Your task to perform on an android device: Search for apple airpods on newegg, select the first entry, and add it to the cart. Image 0: 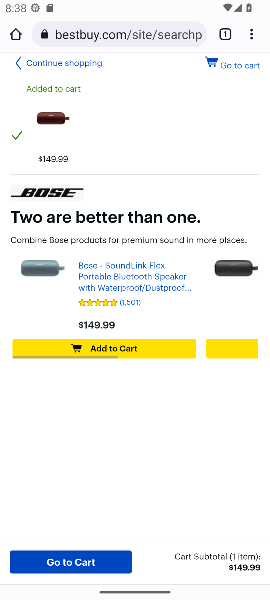
Step 0: press home button
Your task to perform on an android device: Search for apple airpods on newegg, select the first entry, and add it to the cart. Image 1: 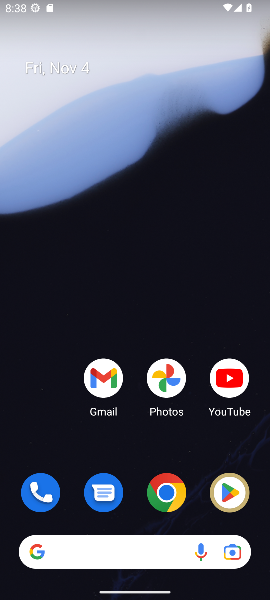
Step 1: drag from (125, 446) to (132, 10)
Your task to perform on an android device: Search for apple airpods on newegg, select the first entry, and add it to the cart. Image 2: 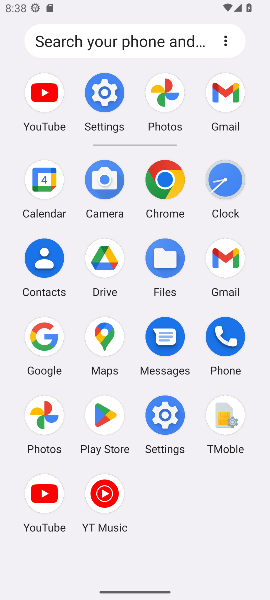
Step 2: click (167, 178)
Your task to perform on an android device: Search for apple airpods on newegg, select the first entry, and add it to the cart. Image 3: 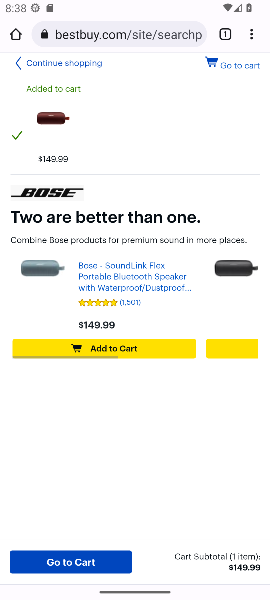
Step 3: click (150, 36)
Your task to perform on an android device: Search for apple airpods on newegg, select the first entry, and add it to the cart. Image 4: 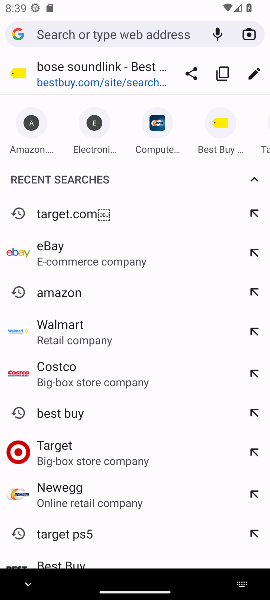
Step 4: type "newegg.com"
Your task to perform on an android device: Search for apple airpods on newegg, select the first entry, and add it to the cart. Image 5: 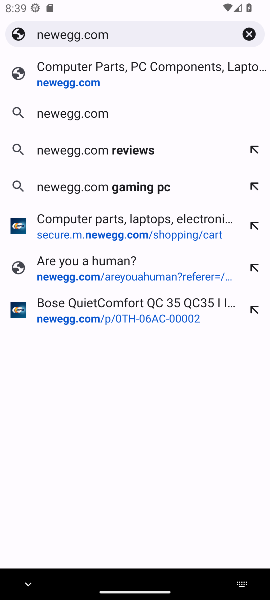
Step 5: press enter
Your task to perform on an android device: Search for apple airpods on newegg, select the first entry, and add it to the cart. Image 6: 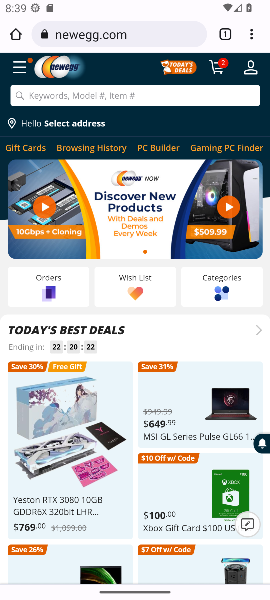
Step 6: click (155, 94)
Your task to perform on an android device: Search for apple airpods on newegg, select the first entry, and add it to the cart. Image 7: 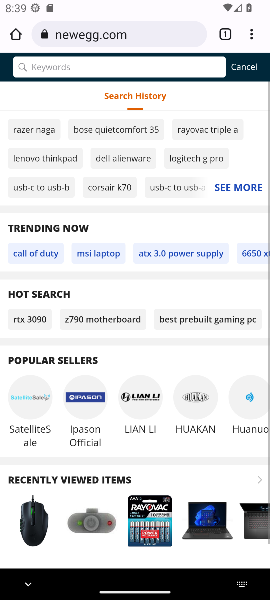
Step 7: type "apple airpods"
Your task to perform on an android device: Search for apple airpods on newegg, select the first entry, and add it to the cart. Image 8: 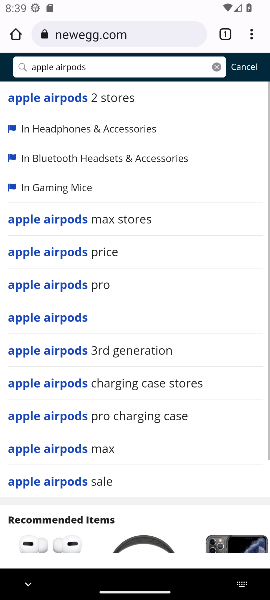
Step 8: press enter
Your task to perform on an android device: Search for apple airpods on newegg, select the first entry, and add it to the cart. Image 9: 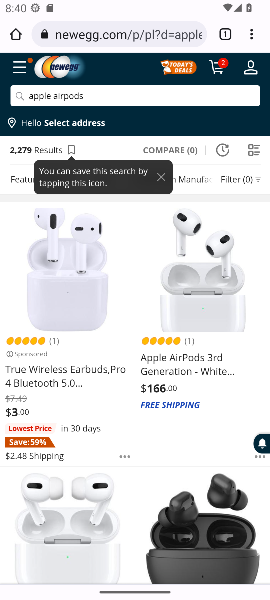
Step 9: drag from (255, 154) to (215, 302)
Your task to perform on an android device: Search for apple airpods on newegg, select the first entry, and add it to the cart. Image 10: 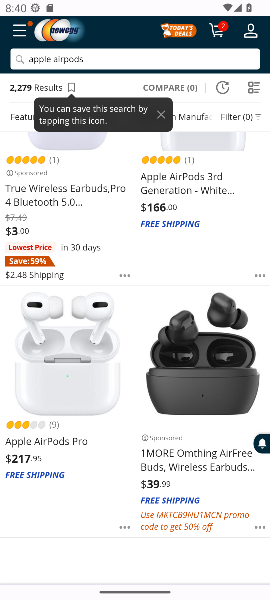
Step 10: drag from (175, 506) to (221, 275)
Your task to perform on an android device: Search for apple airpods on newegg, select the first entry, and add it to the cart. Image 11: 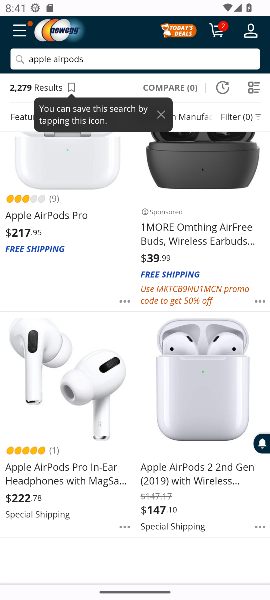
Step 11: drag from (157, 210) to (175, 560)
Your task to perform on an android device: Search for apple airpods on newegg, select the first entry, and add it to the cart. Image 12: 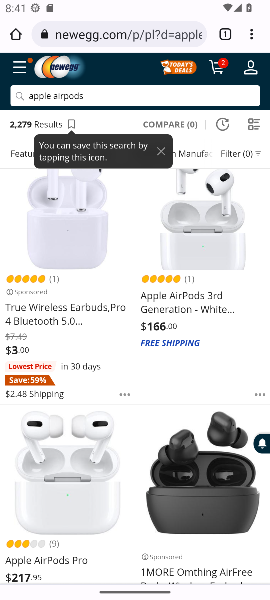
Step 12: drag from (148, 204) to (131, 404)
Your task to perform on an android device: Search for apple airpods on newegg, select the first entry, and add it to the cart. Image 13: 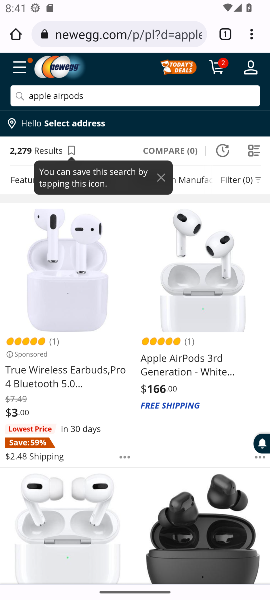
Step 13: click (193, 367)
Your task to perform on an android device: Search for apple airpods on newegg, select the first entry, and add it to the cart. Image 14: 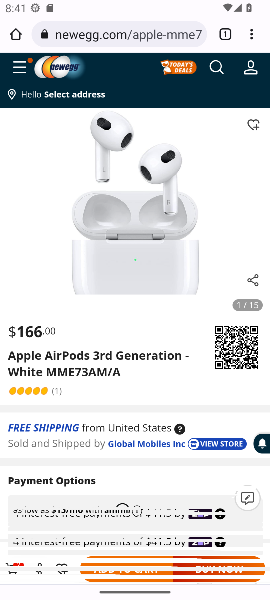
Step 14: drag from (182, 483) to (164, 272)
Your task to perform on an android device: Search for apple airpods on newegg, select the first entry, and add it to the cart. Image 15: 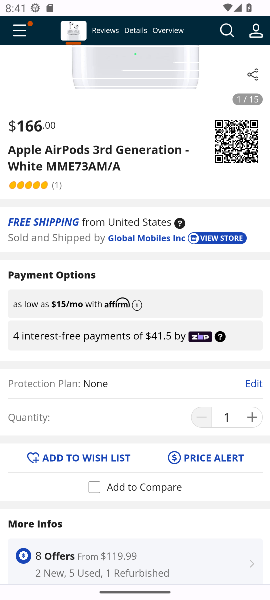
Step 15: drag from (147, 458) to (152, 271)
Your task to perform on an android device: Search for apple airpods on newegg, select the first entry, and add it to the cart. Image 16: 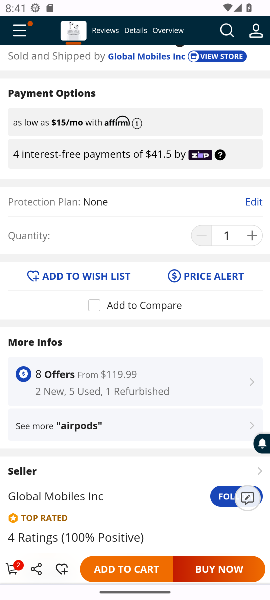
Step 16: click (119, 573)
Your task to perform on an android device: Search for apple airpods on newegg, select the first entry, and add it to the cart. Image 17: 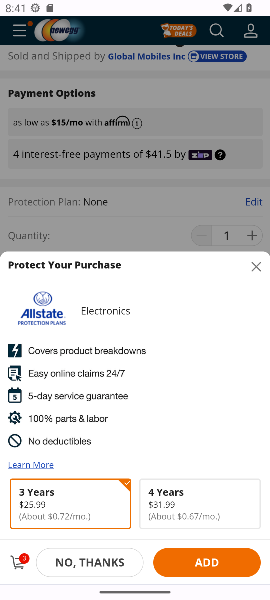
Step 17: task complete